Your task to perform on an android device: Go to Google maps Image 0: 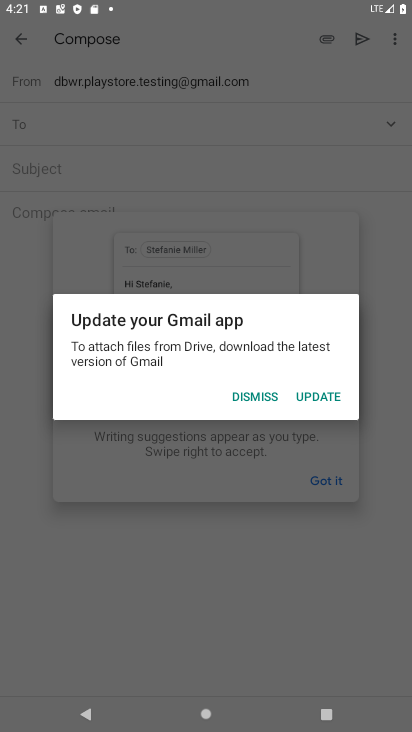
Step 0: press home button
Your task to perform on an android device: Go to Google maps Image 1: 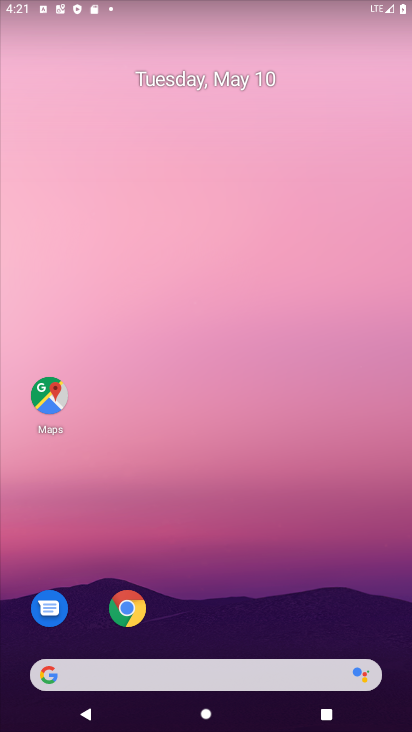
Step 1: click (47, 393)
Your task to perform on an android device: Go to Google maps Image 2: 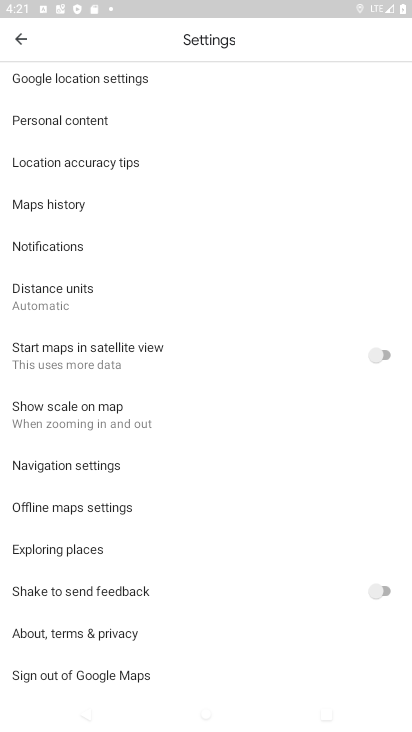
Step 2: task complete